Your task to perform on an android device: What's the weather going to be tomorrow? Image 0: 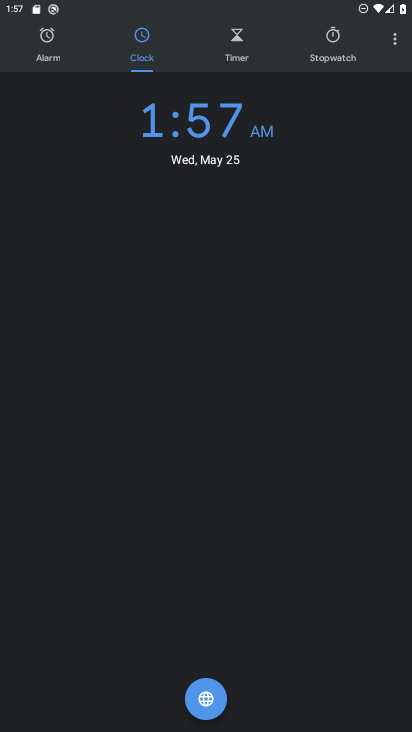
Step 0: press home button
Your task to perform on an android device: What's the weather going to be tomorrow? Image 1: 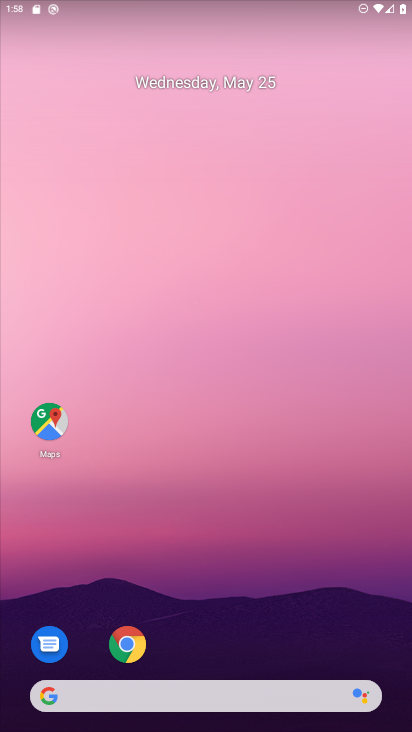
Step 1: drag from (237, 652) to (237, 248)
Your task to perform on an android device: What's the weather going to be tomorrow? Image 2: 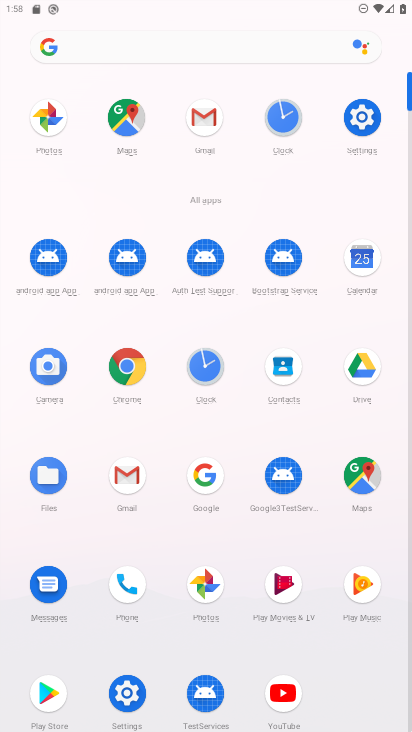
Step 2: click (129, 383)
Your task to perform on an android device: What's the weather going to be tomorrow? Image 3: 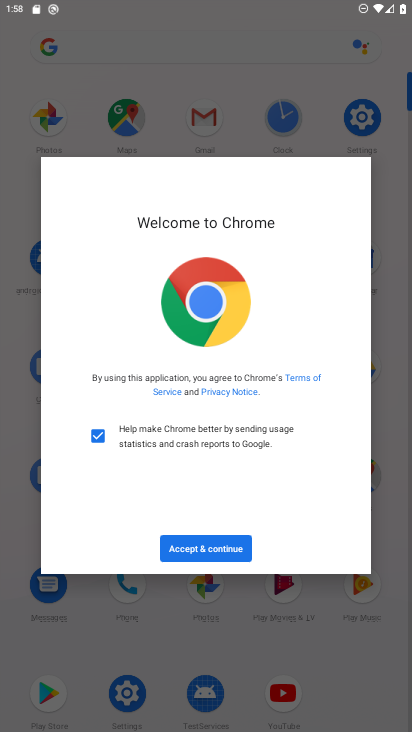
Step 3: click (223, 556)
Your task to perform on an android device: What's the weather going to be tomorrow? Image 4: 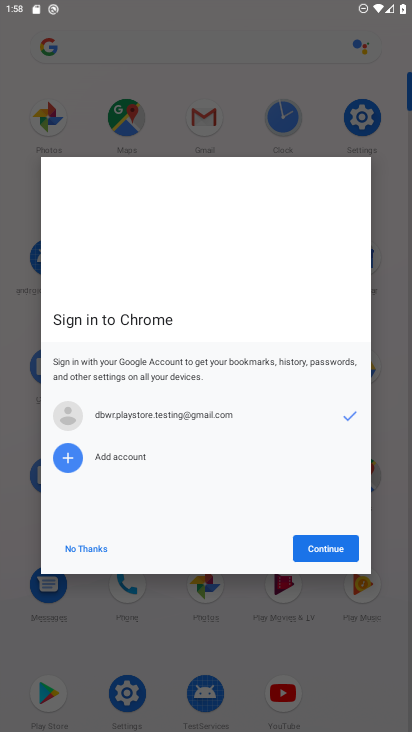
Step 4: click (336, 545)
Your task to perform on an android device: What's the weather going to be tomorrow? Image 5: 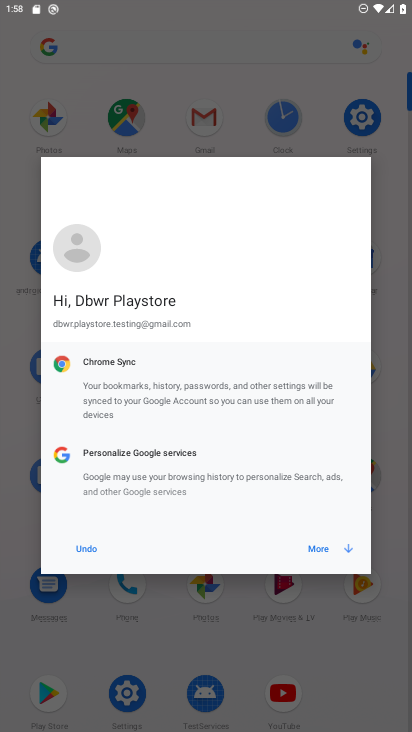
Step 5: click (336, 545)
Your task to perform on an android device: What's the weather going to be tomorrow? Image 6: 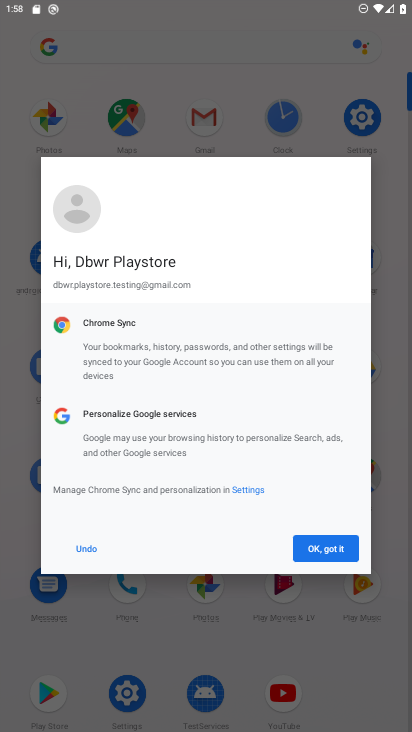
Step 6: click (336, 545)
Your task to perform on an android device: What's the weather going to be tomorrow? Image 7: 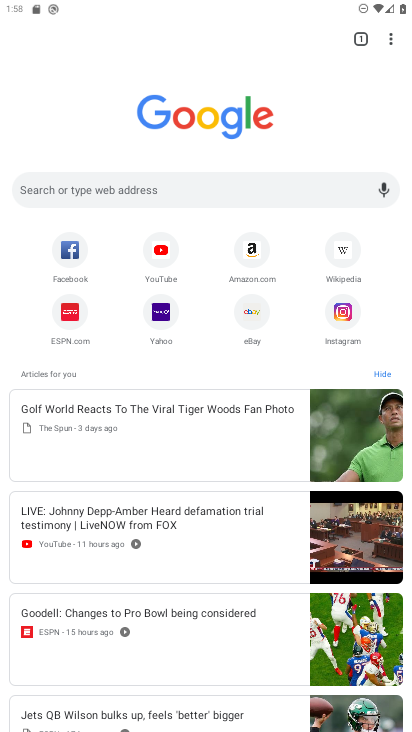
Step 7: click (192, 178)
Your task to perform on an android device: What's the weather going to be tomorrow? Image 8: 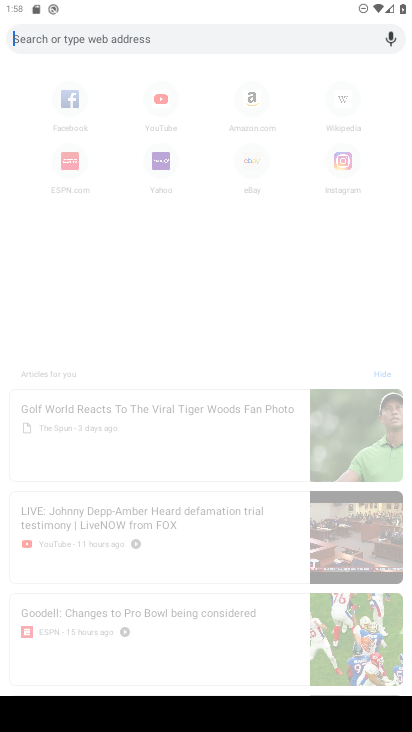
Step 8: type "What's the weather going to be tomorrow?"
Your task to perform on an android device: What's the weather going to be tomorrow? Image 9: 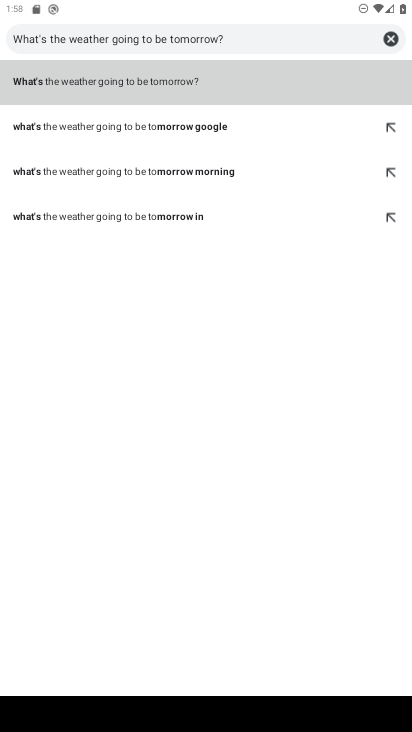
Step 9: click (152, 74)
Your task to perform on an android device: What's the weather going to be tomorrow? Image 10: 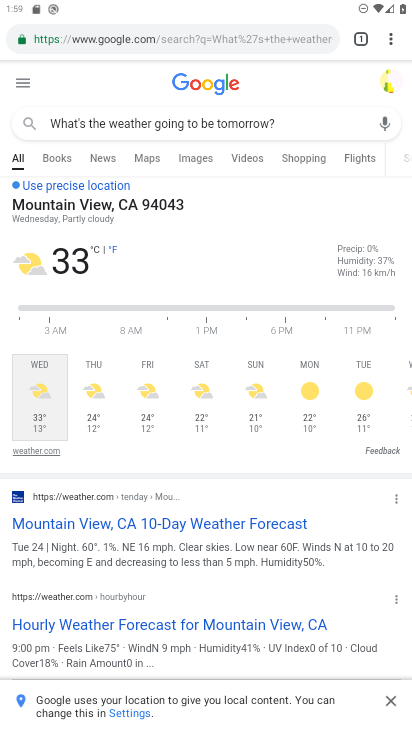
Step 10: task complete